Your task to perform on an android device: open app "Skype" (install if not already installed), go to login, and select forgot password Image 0: 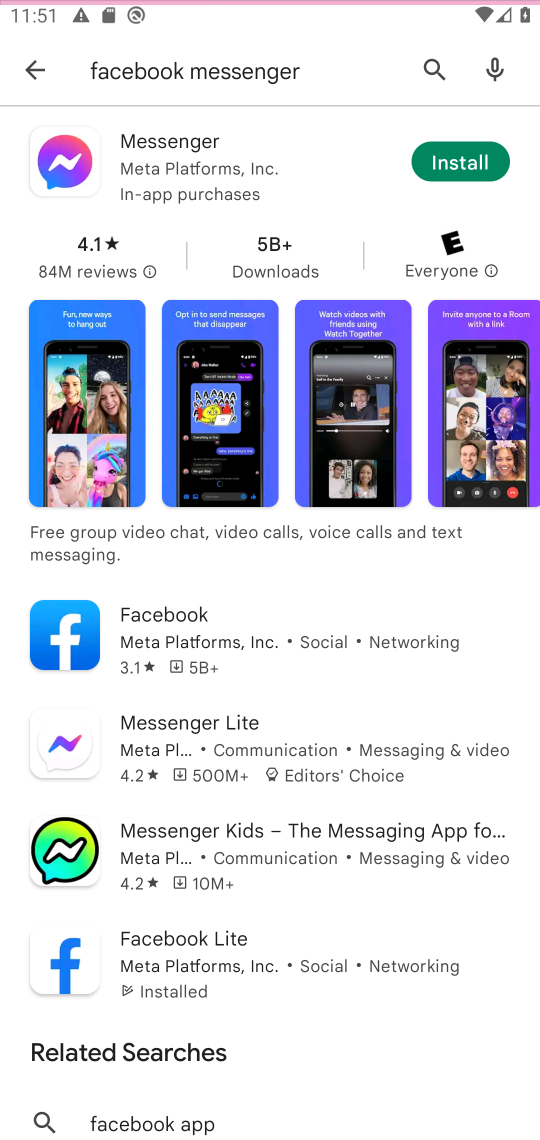
Step 0: press home button
Your task to perform on an android device: open app "Skype" (install if not already installed), go to login, and select forgot password Image 1: 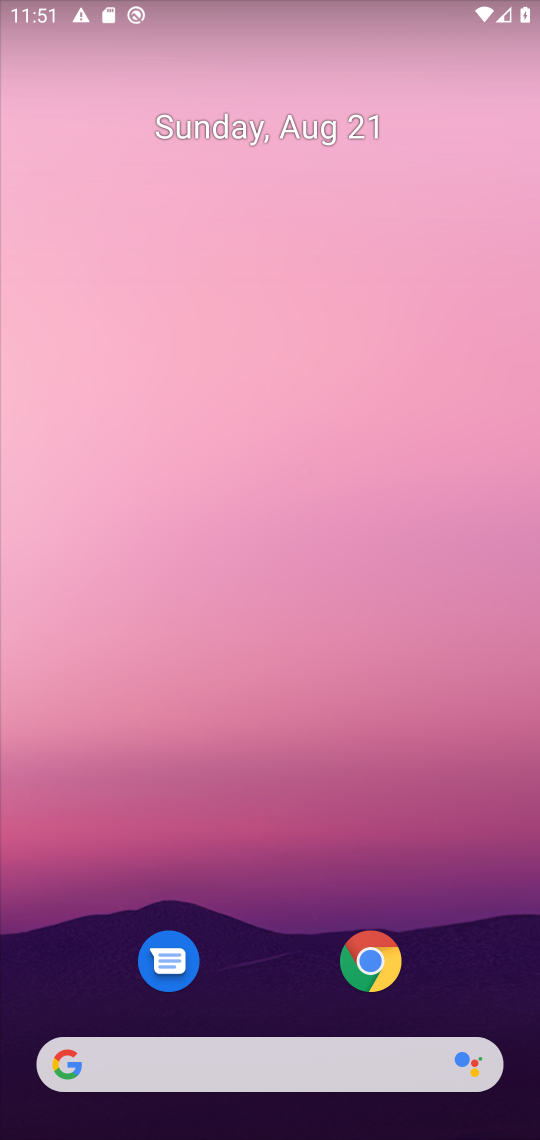
Step 1: drag from (455, 955) to (502, 87)
Your task to perform on an android device: open app "Skype" (install if not already installed), go to login, and select forgot password Image 2: 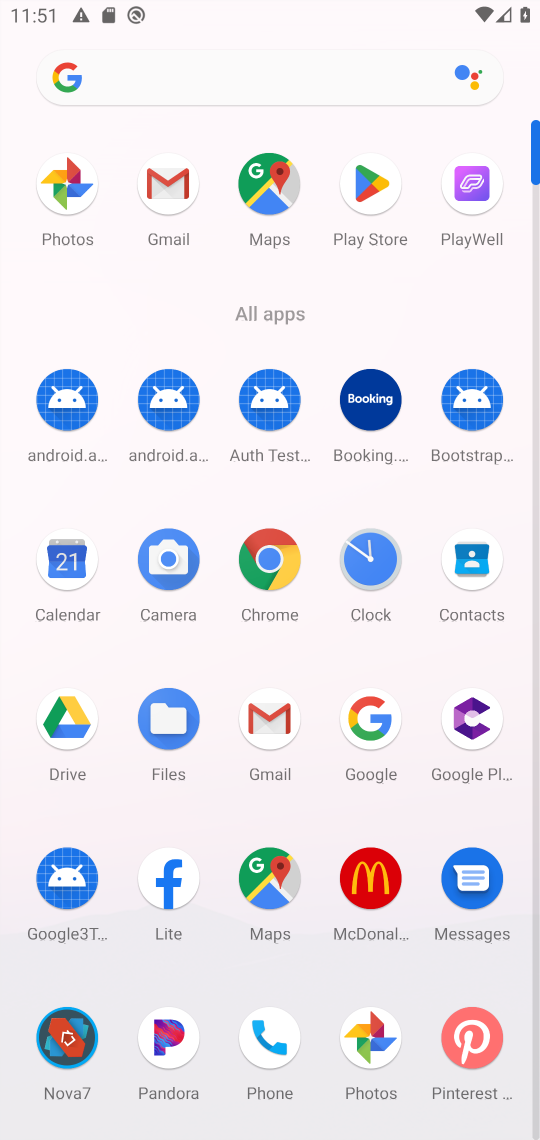
Step 2: click (370, 190)
Your task to perform on an android device: open app "Skype" (install if not already installed), go to login, and select forgot password Image 3: 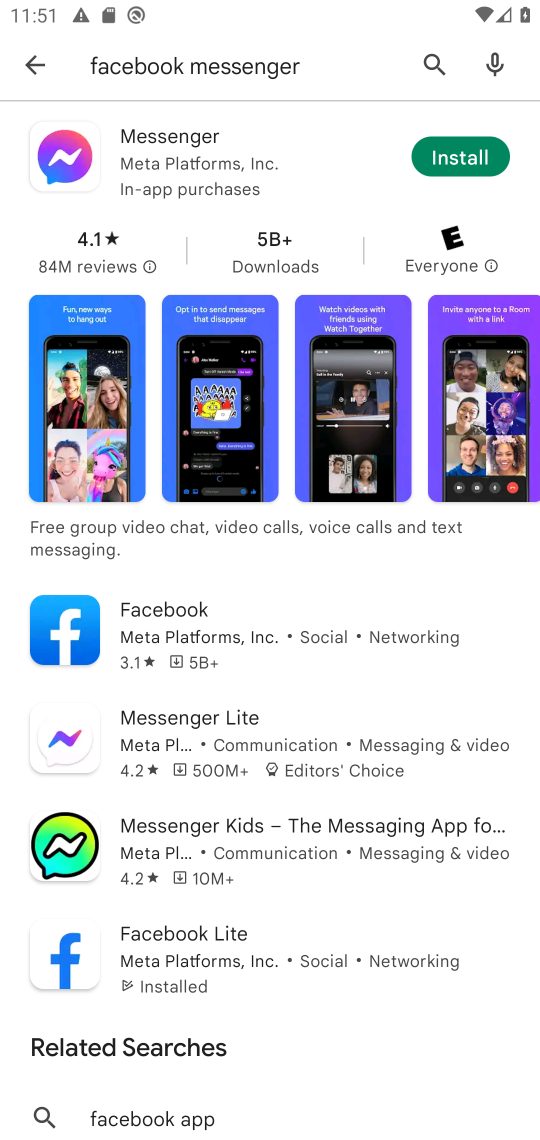
Step 3: press back button
Your task to perform on an android device: open app "Skype" (install if not already installed), go to login, and select forgot password Image 4: 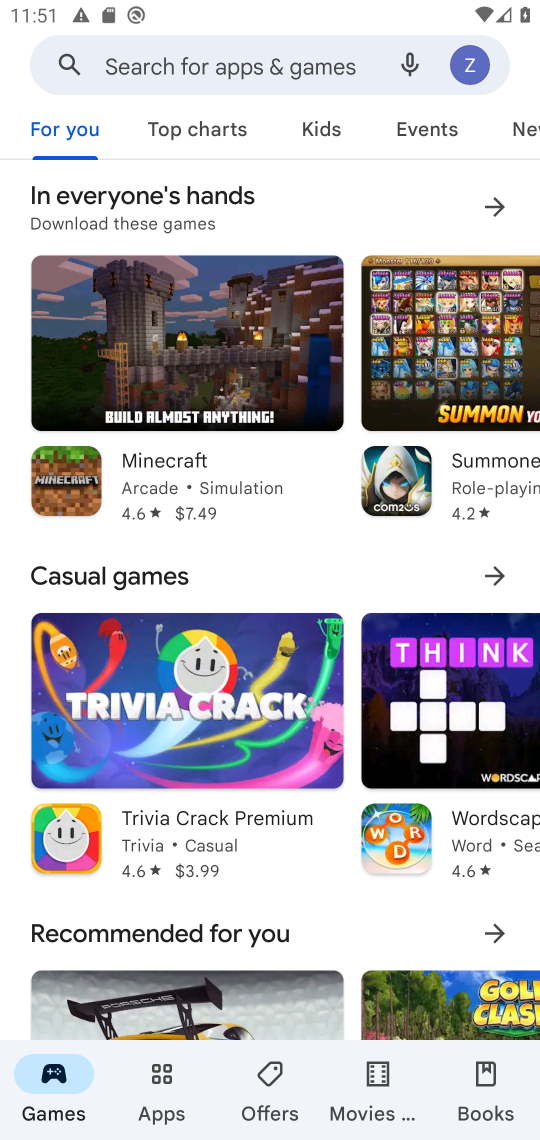
Step 4: click (313, 64)
Your task to perform on an android device: open app "Skype" (install if not already installed), go to login, and select forgot password Image 5: 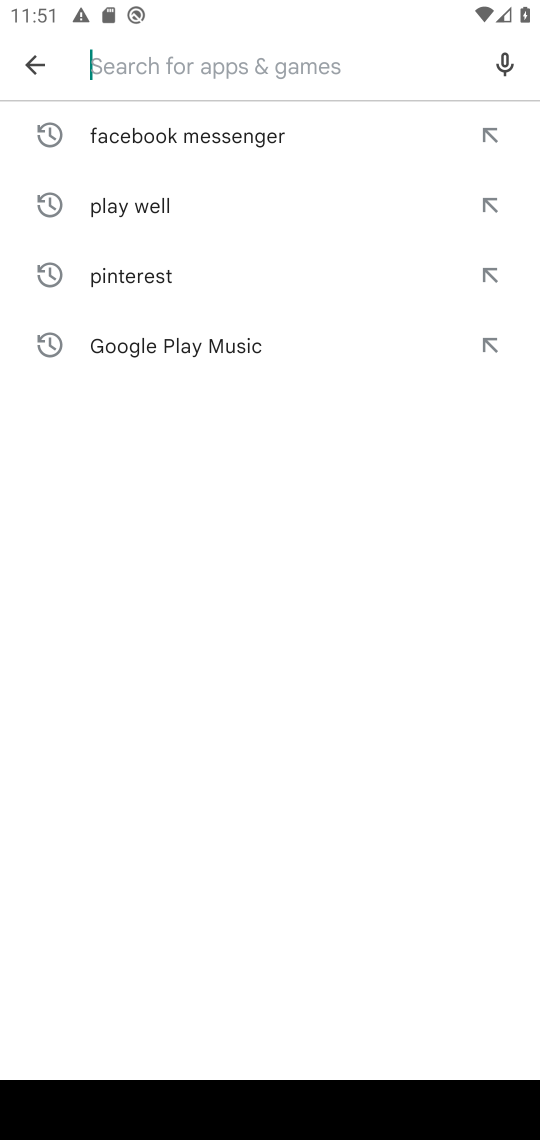
Step 5: press enter
Your task to perform on an android device: open app "Skype" (install if not already installed), go to login, and select forgot password Image 6: 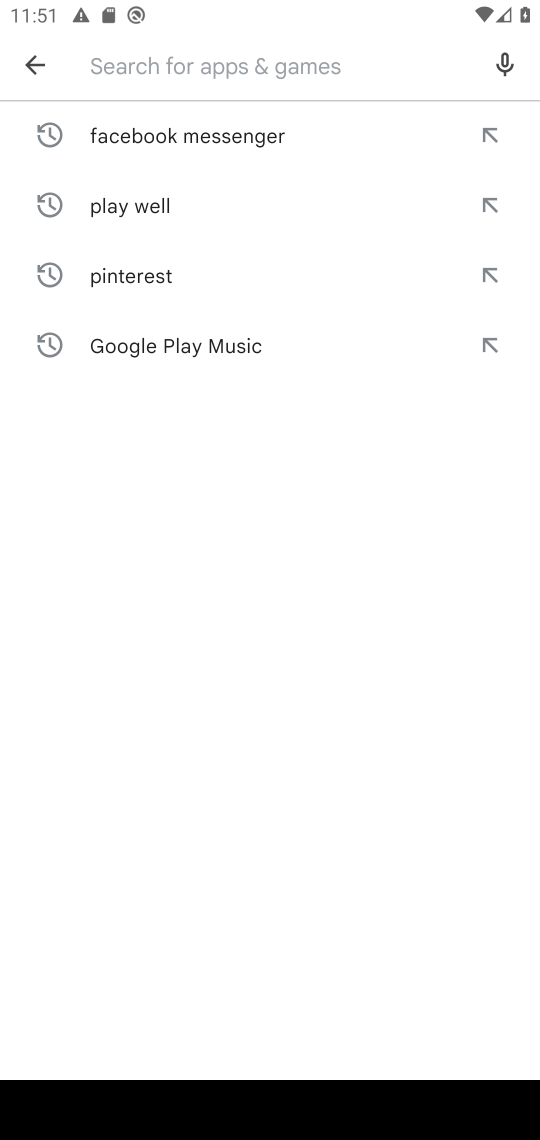
Step 6: type "skype"
Your task to perform on an android device: open app "Skype" (install if not already installed), go to login, and select forgot password Image 7: 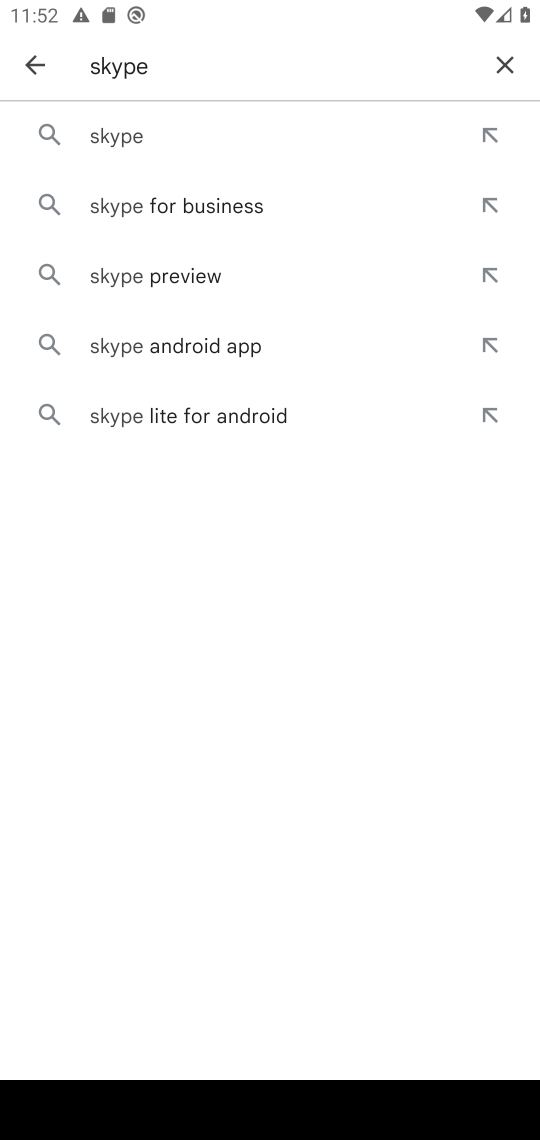
Step 7: click (225, 147)
Your task to perform on an android device: open app "Skype" (install if not already installed), go to login, and select forgot password Image 8: 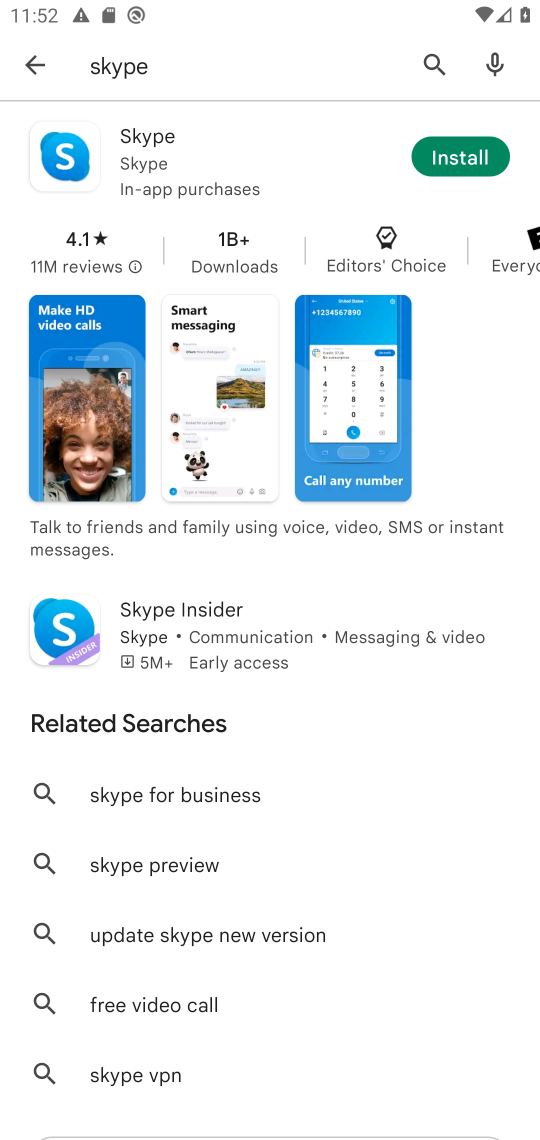
Step 8: click (492, 153)
Your task to perform on an android device: open app "Skype" (install if not already installed), go to login, and select forgot password Image 9: 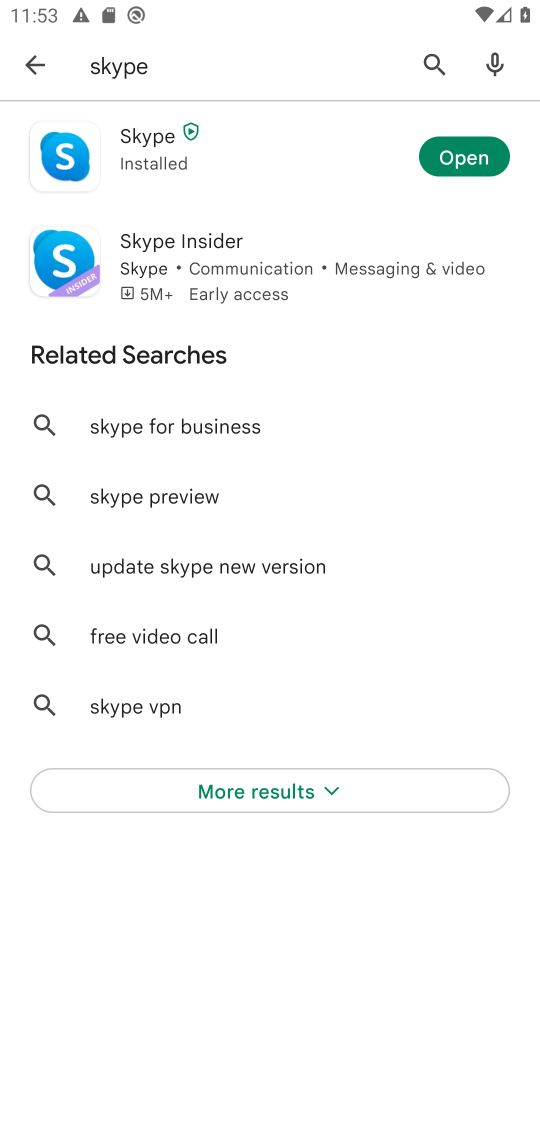
Step 9: click (476, 162)
Your task to perform on an android device: open app "Skype" (install if not already installed), go to login, and select forgot password Image 10: 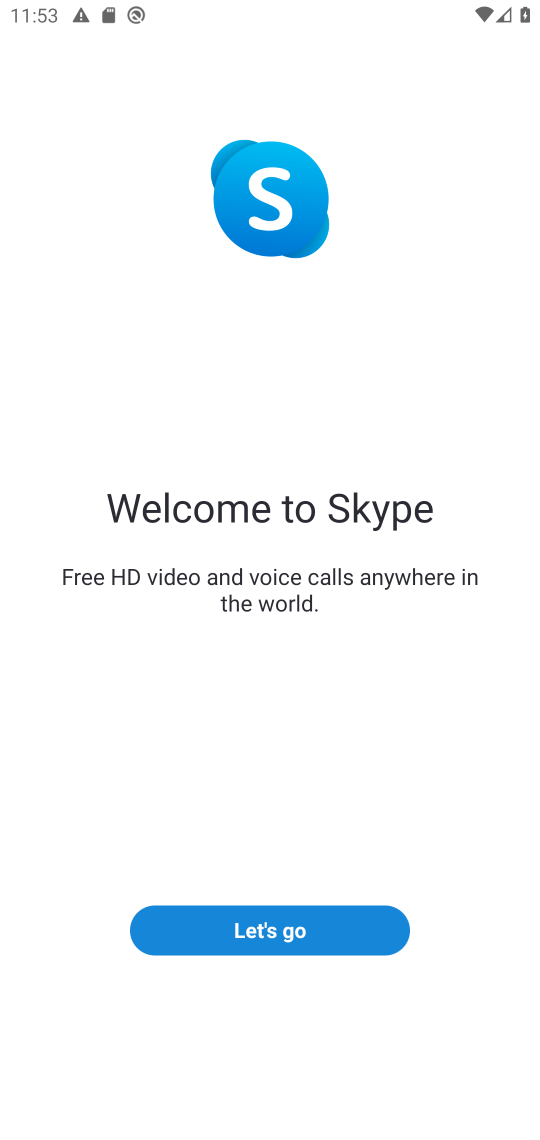
Step 10: click (297, 940)
Your task to perform on an android device: open app "Skype" (install if not already installed), go to login, and select forgot password Image 11: 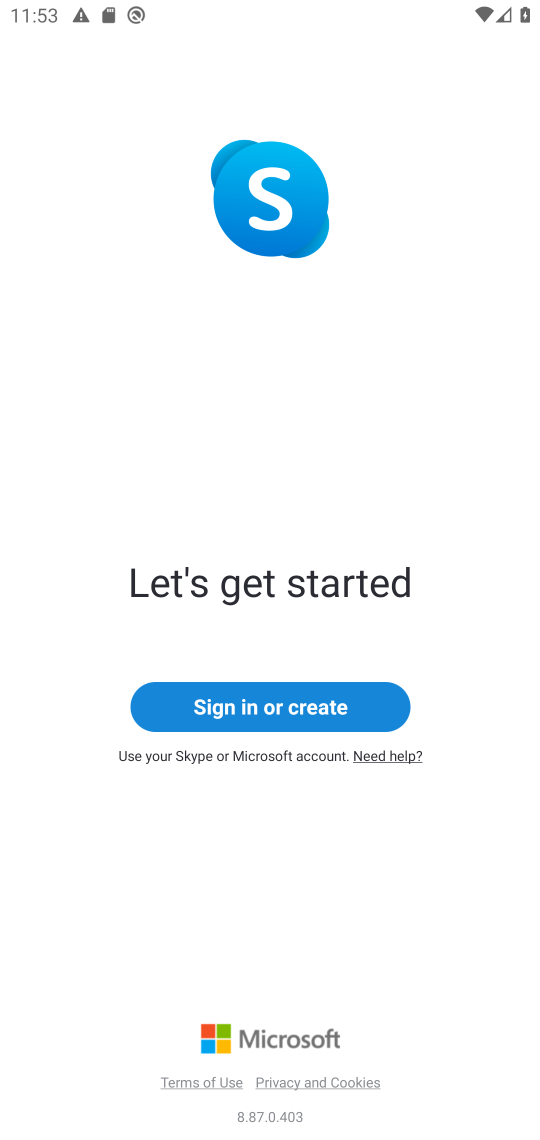
Step 11: click (300, 703)
Your task to perform on an android device: open app "Skype" (install if not already installed), go to login, and select forgot password Image 12: 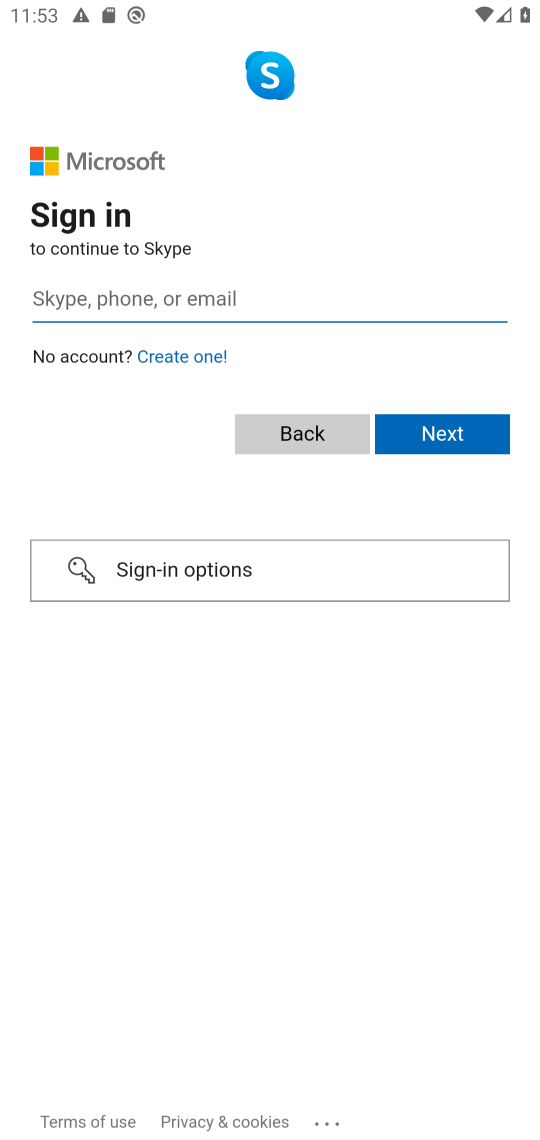
Step 12: task complete